Your task to perform on an android device: Go to ESPN.com Image 0: 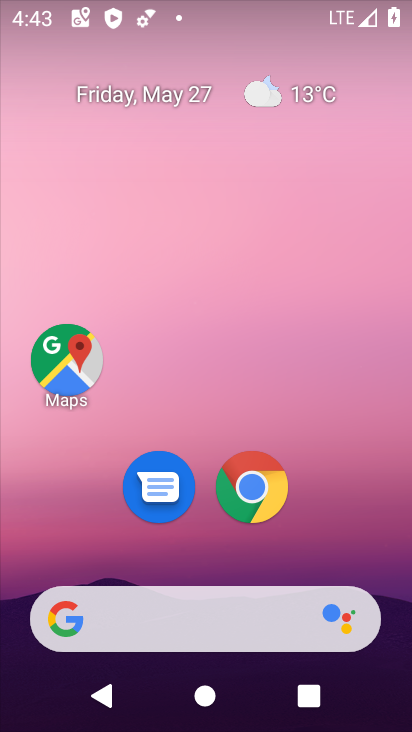
Step 0: click (255, 480)
Your task to perform on an android device: Go to ESPN.com Image 1: 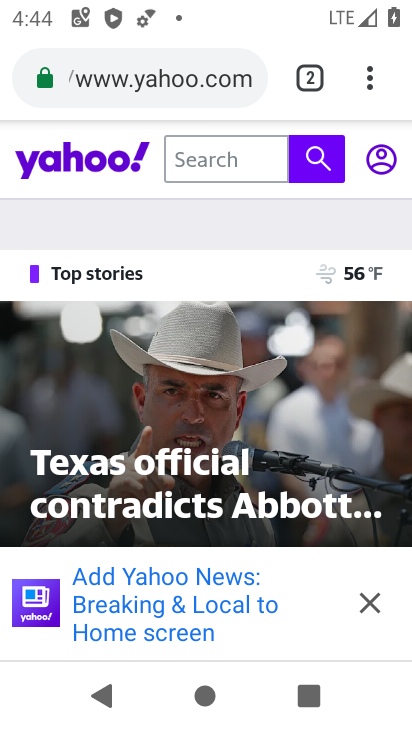
Step 1: click (203, 86)
Your task to perform on an android device: Go to ESPN.com Image 2: 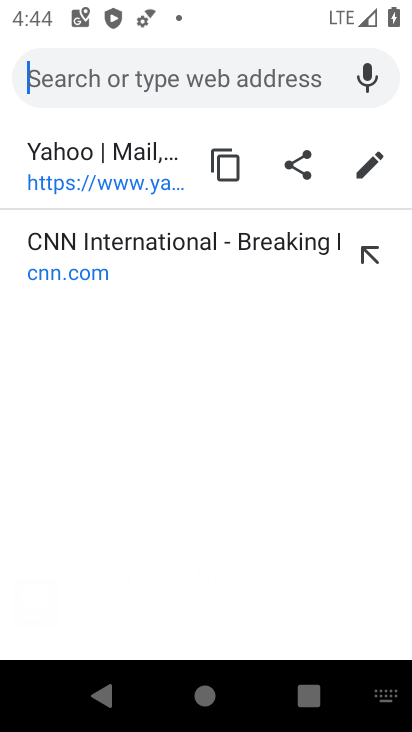
Step 2: type "espn.com"
Your task to perform on an android device: Go to ESPN.com Image 3: 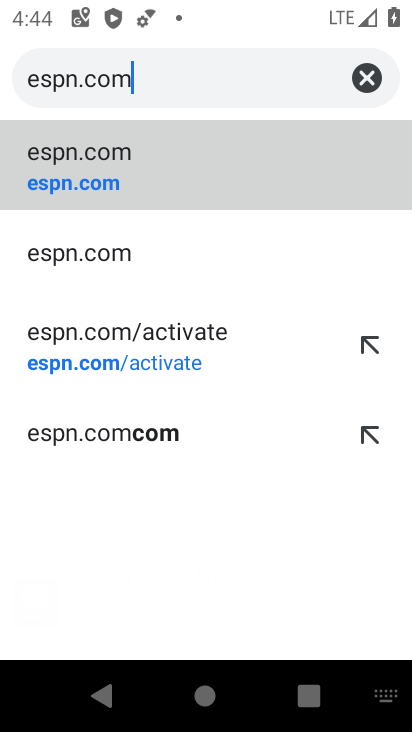
Step 3: click (97, 184)
Your task to perform on an android device: Go to ESPN.com Image 4: 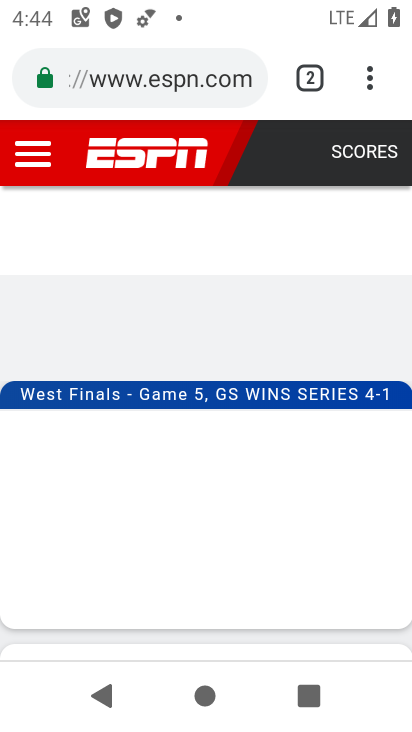
Step 4: task complete